Your task to perform on an android device: turn pop-ups on in chrome Image 0: 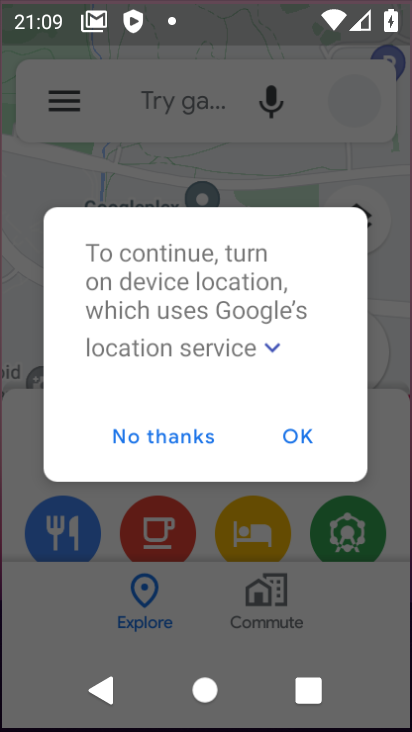
Step 0: press home button
Your task to perform on an android device: turn pop-ups on in chrome Image 1: 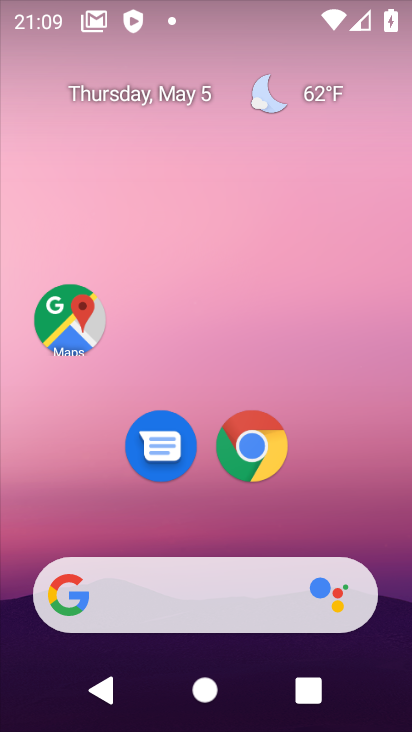
Step 1: drag from (250, 638) to (176, 297)
Your task to perform on an android device: turn pop-ups on in chrome Image 2: 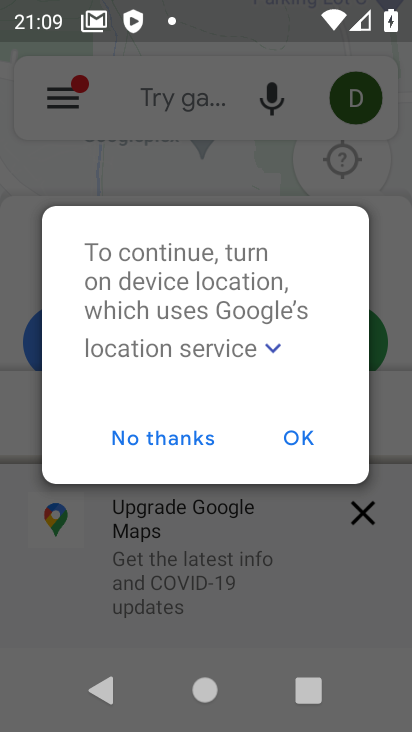
Step 2: press home button
Your task to perform on an android device: turn pop-ups on in chrome Image 3: 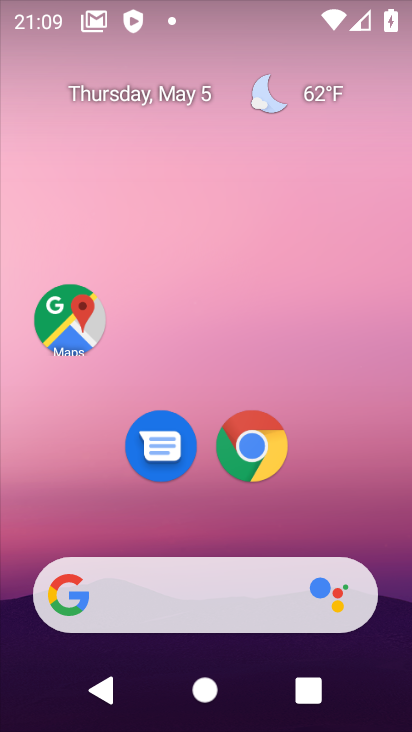
Step 3: drag from (313, 654) to (239, 206)
Your task to perform on an android device: turn pop-ups on in chrome Image 4: 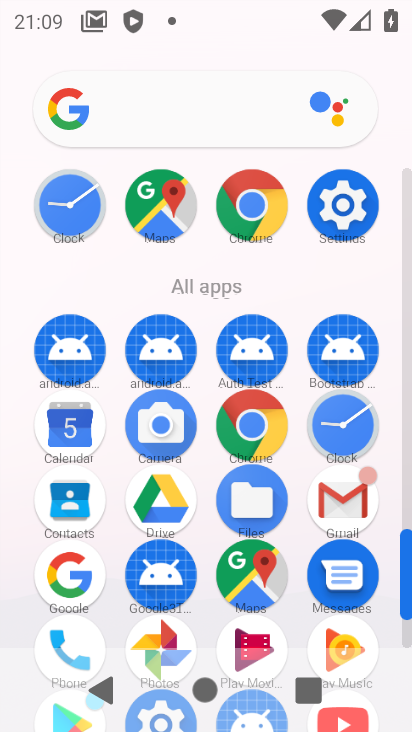
Step 4: click (233, 225)
Your task to perform on an android device: turn pop-ups on in chrome Image 5: 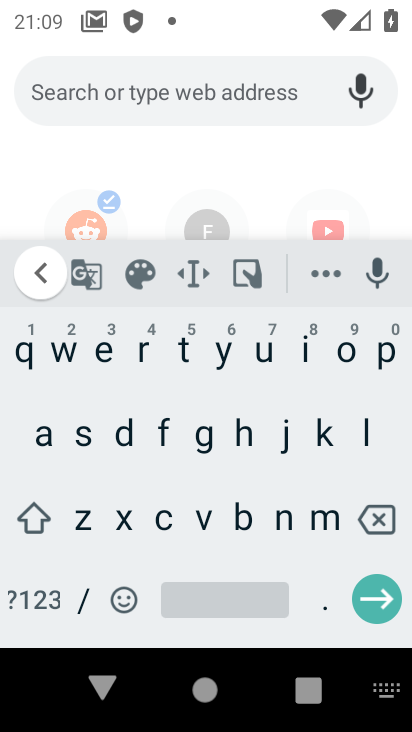
Step 5: press back button
Your task to perform on an android device: turn pop-ups on in chrome Image 6: 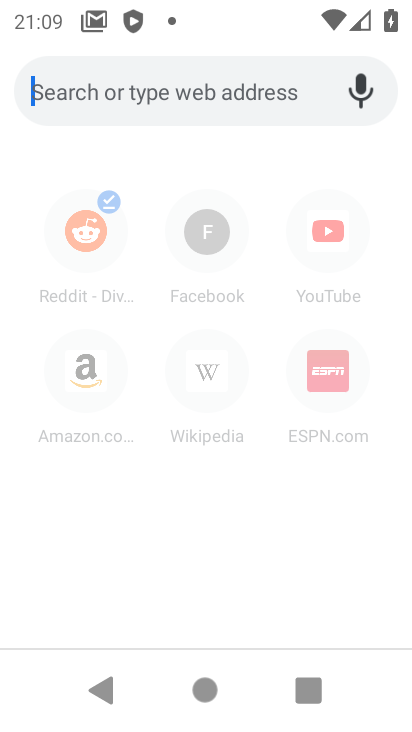
Step 6: press back button
Your task to perform on an android device: turn pop-ups on in chrome Image 7: 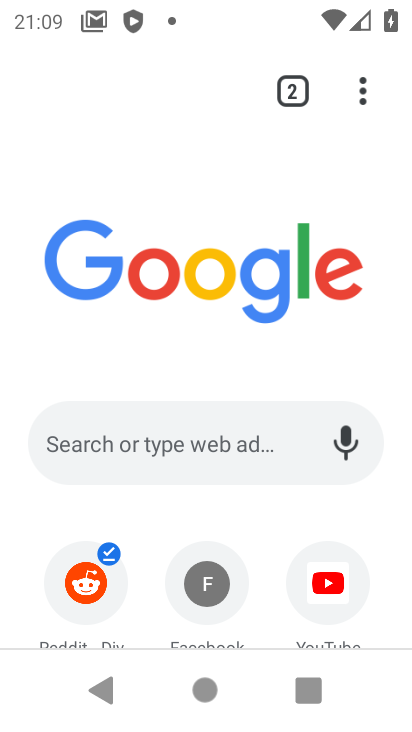
Step 7: click (354, 116)
Your task to perform on an android device: turn pop-ups on in chrome Image 8: 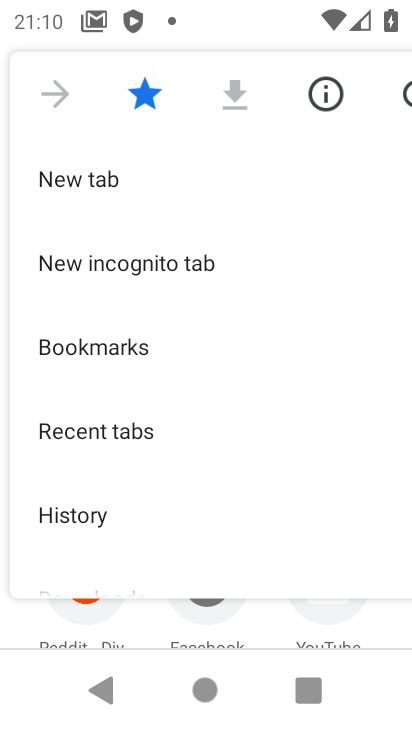
Step 8: drag from (178, 535) to (194, 377)
Your task to perform on an android device: turn pop-ups on in chrome Image 9: 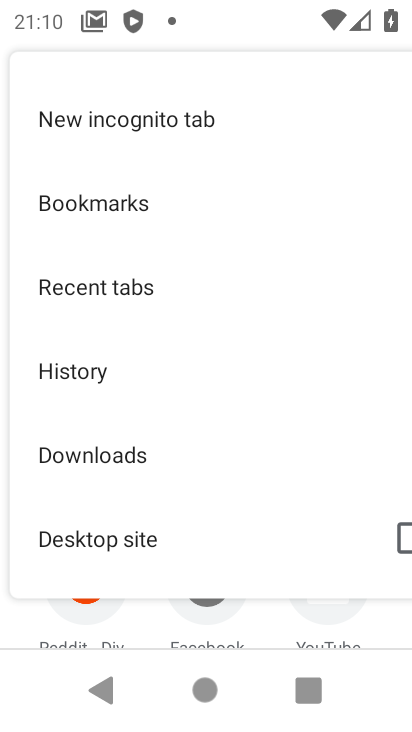
Step 9: drag from (118, 499) to (182, 373)
Your task to perform on an android device: turn pop-ups on in chrome Image 10: 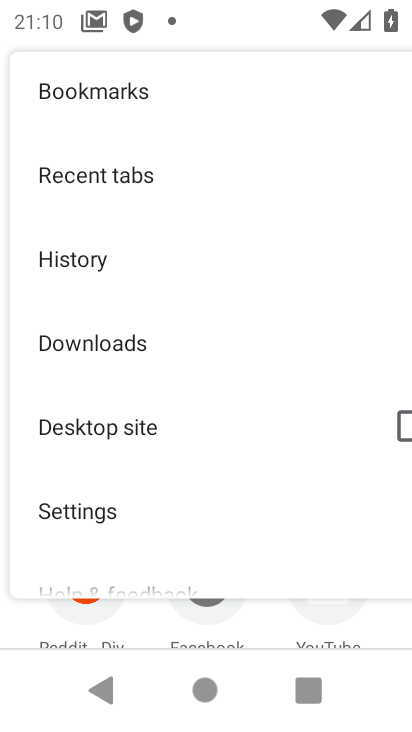
Step 10: click (138, 508)
Your task to perform on an android device: turn pop-ups on in chrome Image 11: 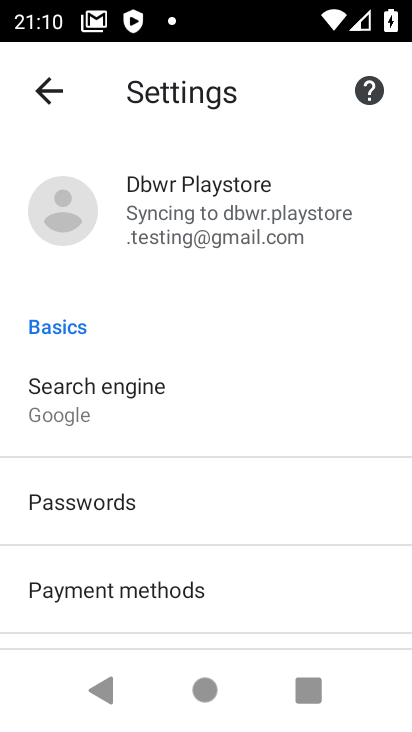
Step 11: drag from (137, 512) to (211, 287)
Your task to perform on an android device: turn pop-ups on in chrome Image 12: 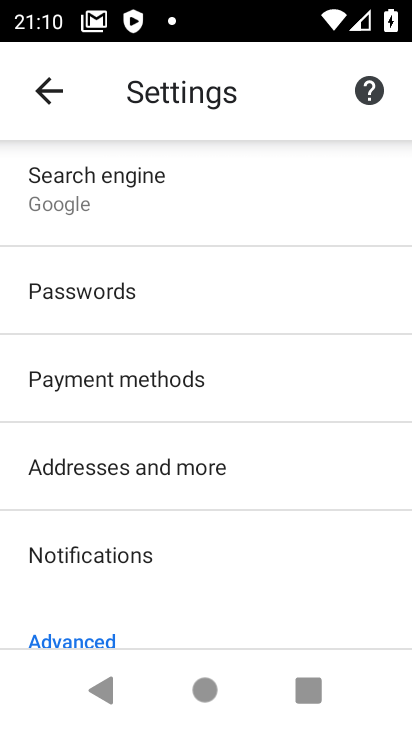
Step 12: drag from (207, 550) to (294, 204)
Your task to perform on an android device: turn pop-ups on in chrome Image 13: 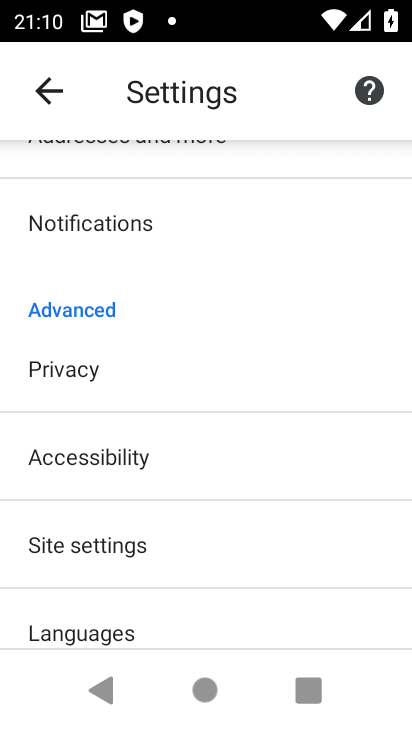
Step 13: drag from (230, 523) to (260, 367)
Your task to perform on an android device: turn pop-ups on in chrome Image 14: 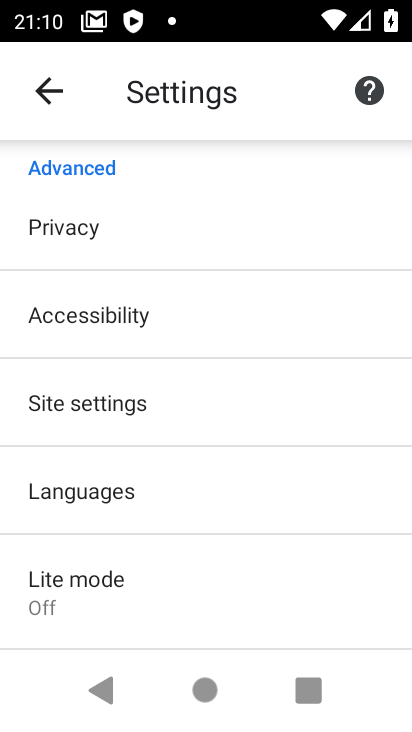
Step 14: click (152, 414)
Your task to perform on an android device: turn pop-ups on in chrome Image 15: 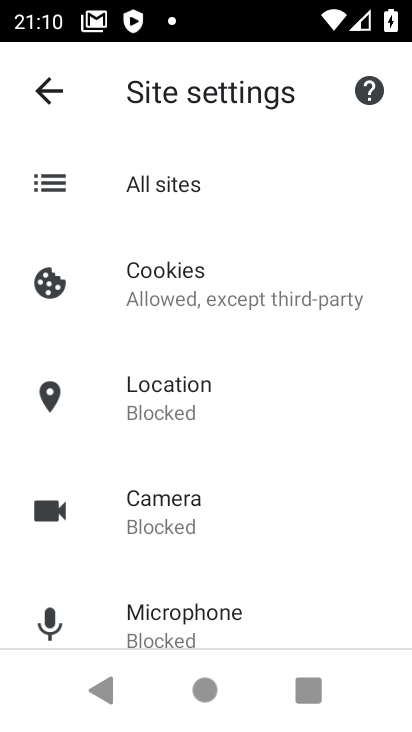
Step 15: drag from (190, 595) to (222, 411)
Your task to perform on an android device: turn pop-ups on in chrome Image 16: 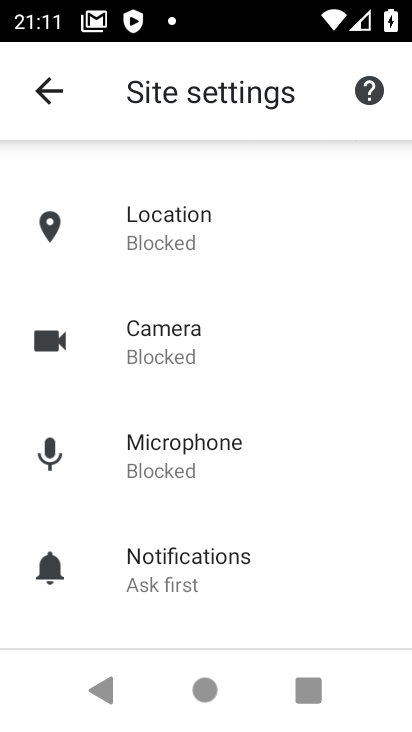
Step 16: drag from (182, 484) to (275, 253)
Your task to perform on an android device: turn pop-ups on in chrome Image 17: 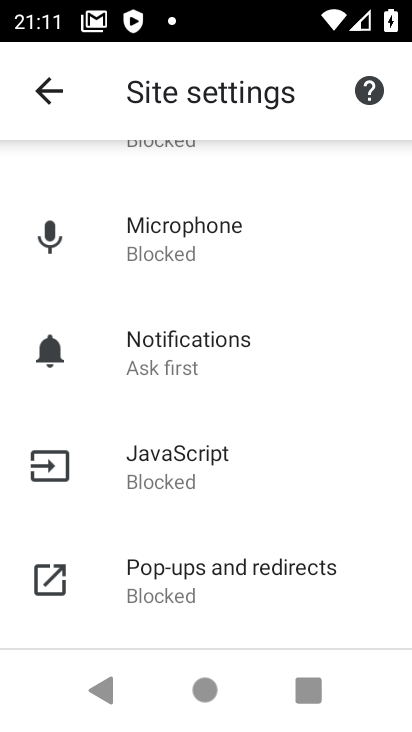
Step 17: click (171, 568)
Your task to perform on an android device: turn pop-ups on in chrome Image 18: 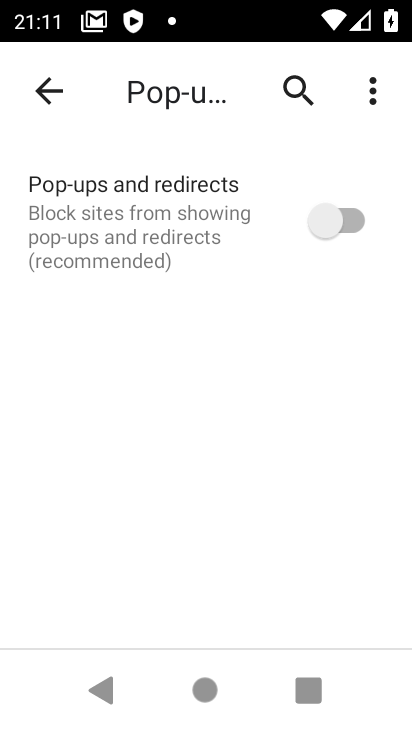
Step 18: click (330, 225)
Your task to perform on an android device: turn pop-ups on in chrome Image 19: 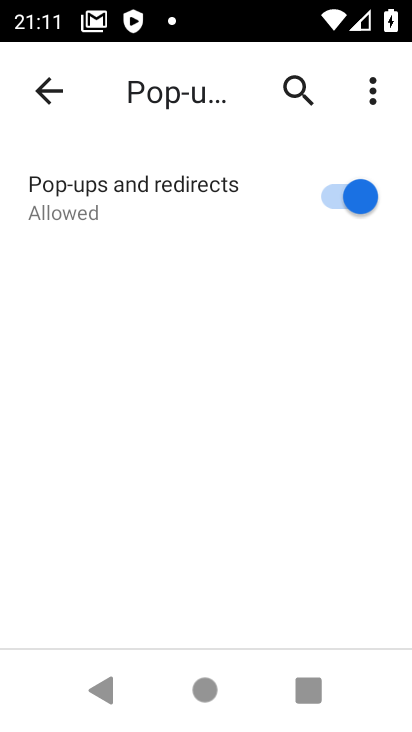
Step 19: task complete